Your task to perform on an android device: turn smart compose on in the gmail app Image 0: 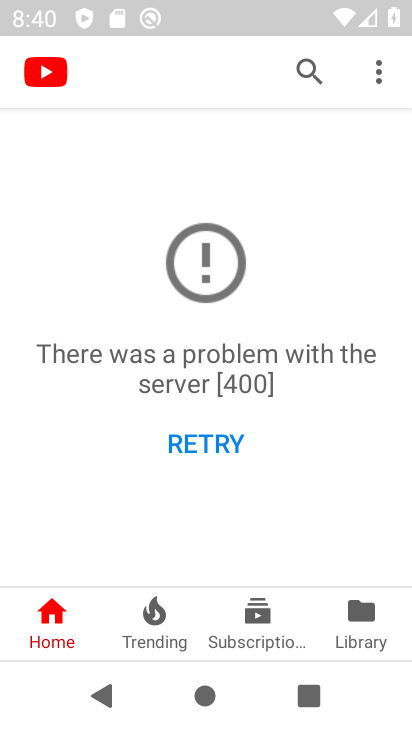
Step 0: press home button
Your task to perform on an android device: turn smart compose on in the gmail app Image 1: 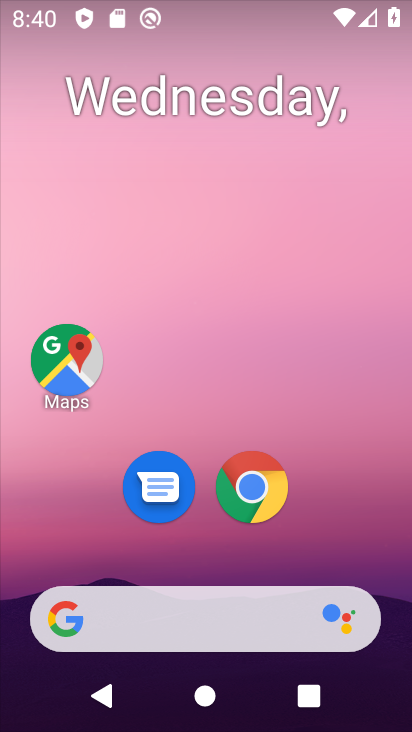
Step 1: drag from (387, 575) to (296, 201)
Your task to perform on an android device: turn smart compose on in the gmail app Image 2: 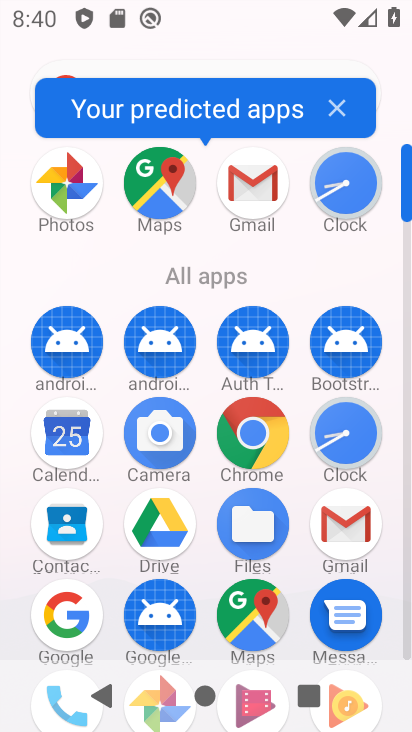
Step 2: click (269, 210)
Your task to perform on an android device: turn smart compose on in the gmail app Image 3: 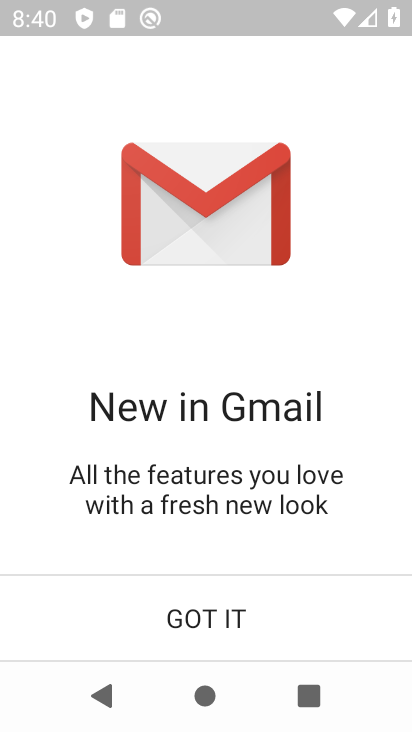
Step 3: click (208, 613)
Your task to perform on an android device: turn smart compose on in the gmail app Image 4: 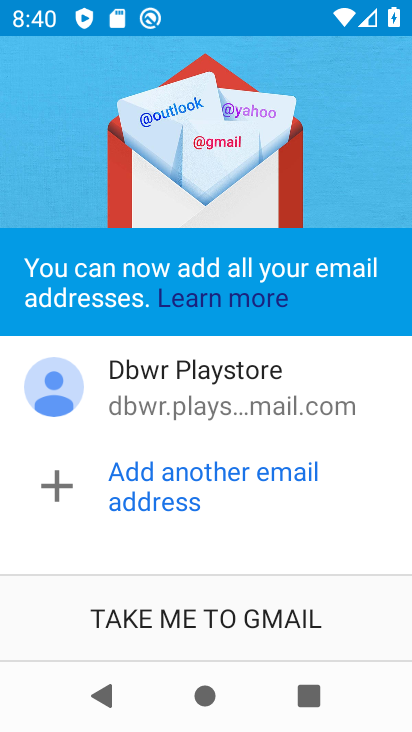
Step 4: click (208, 613)
Your task to perform on an android device: turn smart compose on in the gmail app Image 5: 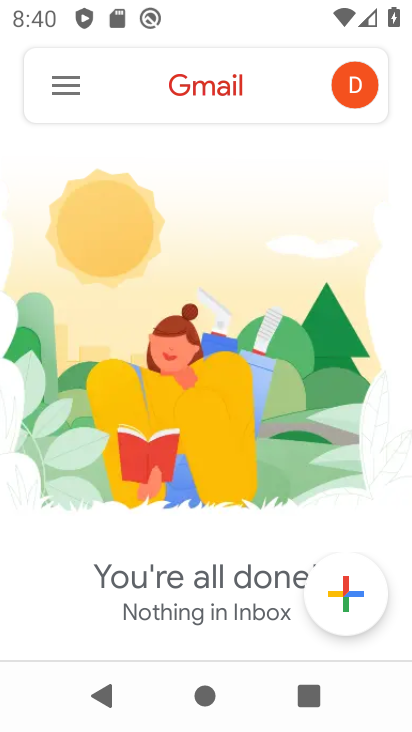
Step 5: click (78, 98)
Your task to perform on an android device: turn smart compose on in the gmail app Image 6: 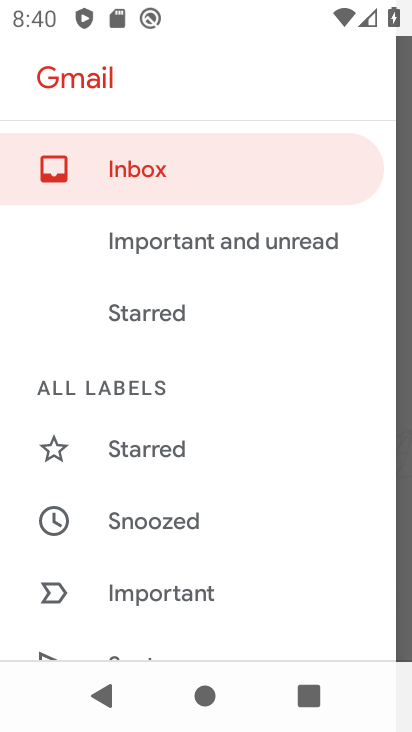
Step 6: drag from (140, 621) to (148, 119)
Your task to perform on an android device: turn smart compose on in the gmail app Image 7: 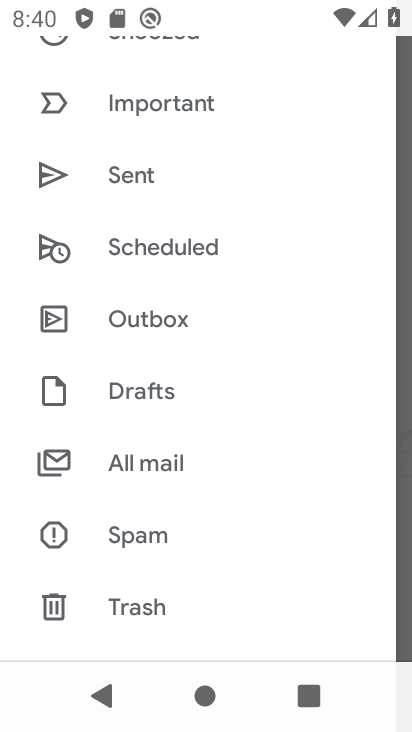
Step 7: drag from (107, 565) to (93, 61)
Your task to perform on an android device: turn smart compose on in the gmail app Image 8: 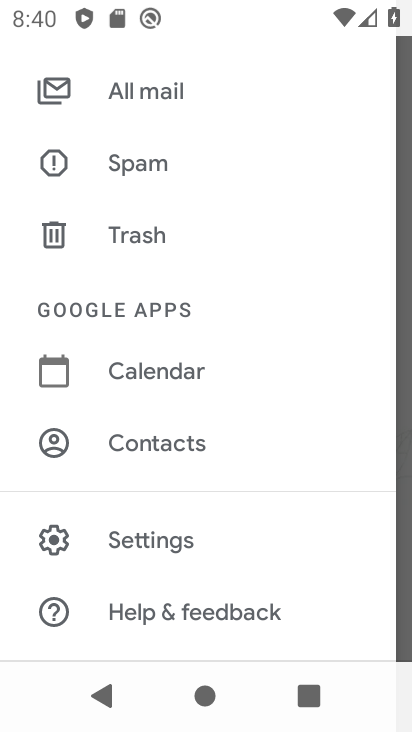
Step 8: click (161, 522)
Your task to perform on an android device: turn smart compose on in the gmail app Image 9: 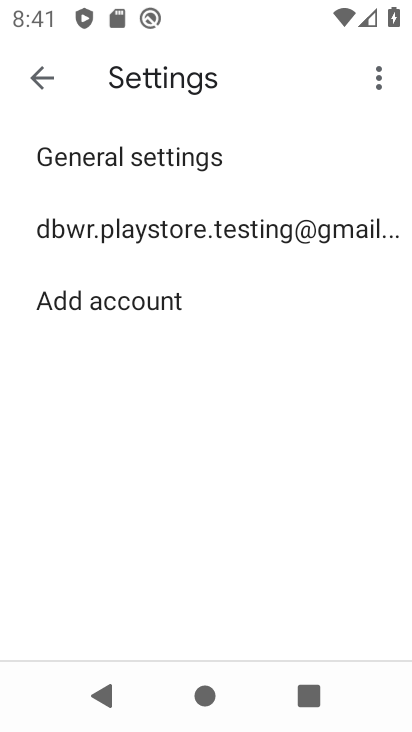
Step 9: click (287, 241)
Your task to perform on an android device: turn smart compose on in the gmail app Image 10: 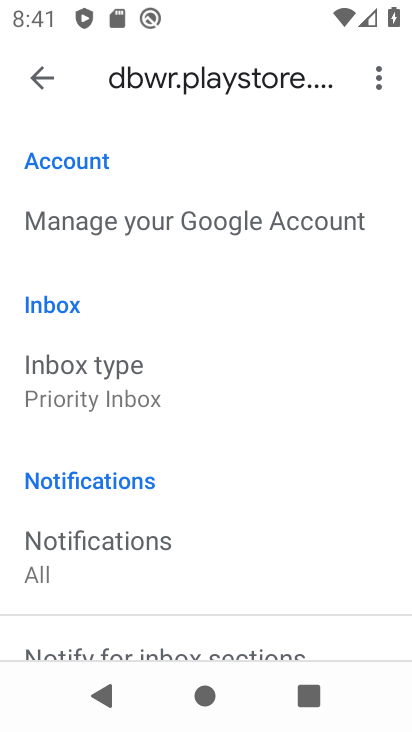
Step 10: task complete